Your task to perform on an android device: Go to Wikipedia Image 0: 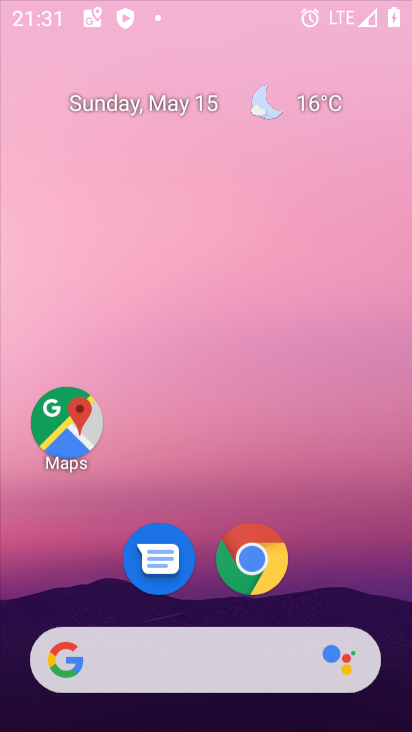
Step 0: press home button
Your task to perform on an android device: Go to Wikipedia Image 1: 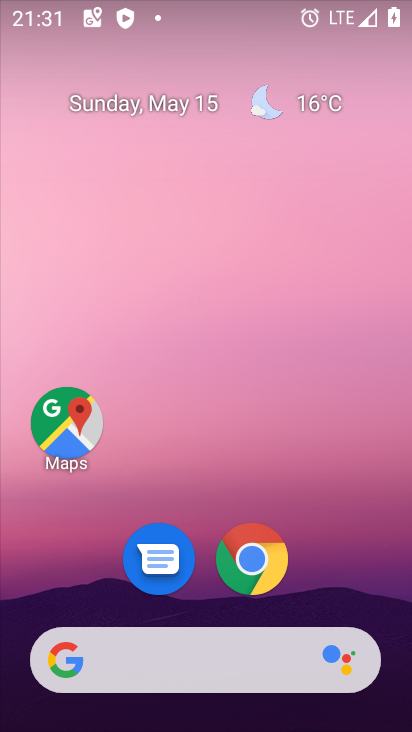
Step 1: click (244, 557)
Your task to perform on an android device: Go to Wikipedia Image 2: 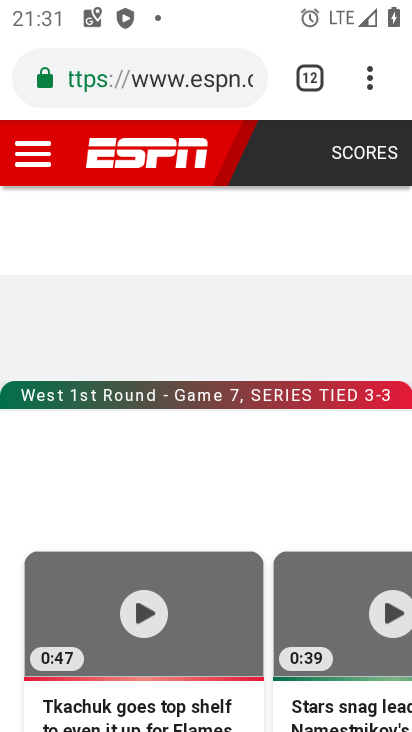
Step 2: click (369, 77)
Your task to perform on an android device: Go to Wikipedia Image 3: 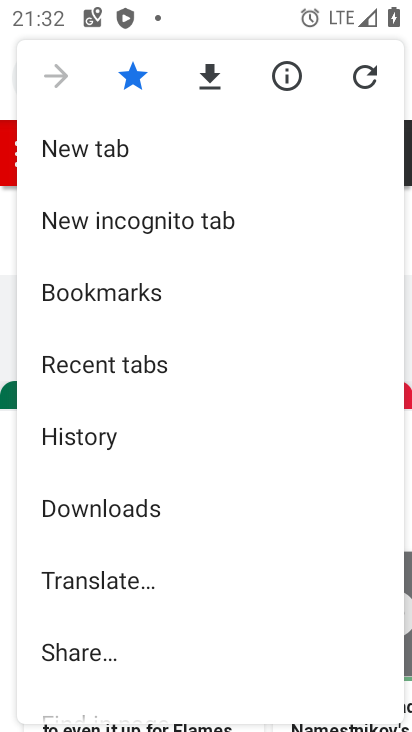
Step 3: click (92, 158)
Your task to perform on an android device: Go to Wikipedia Image 4: 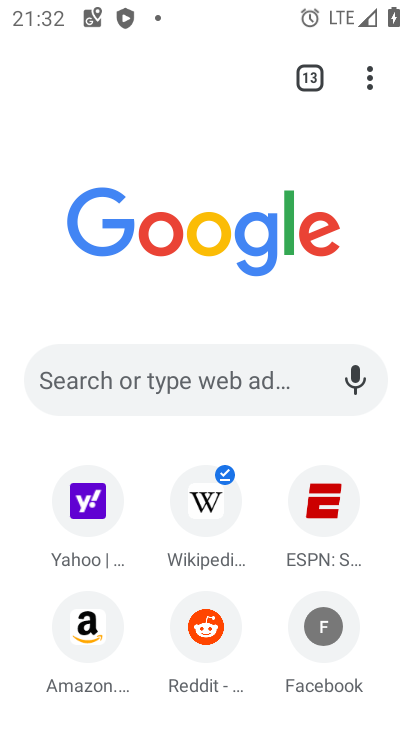
Step 4: click (182, 523)
Your task to perform on an android device: Go to Wikipedia Image 5: 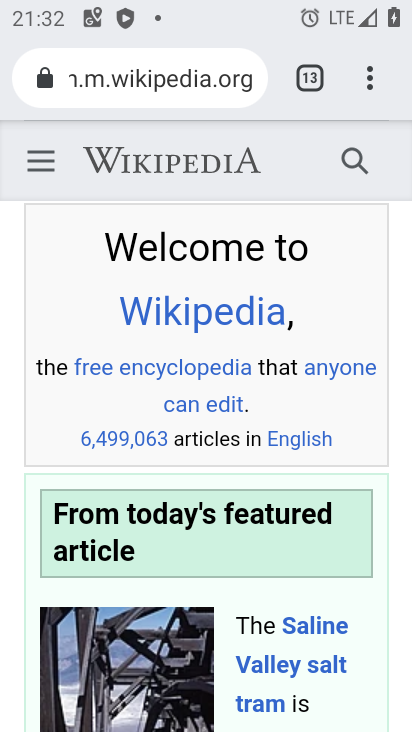
Step 5: task complete